Your task to perform on an android device: toggle location history Image 0: 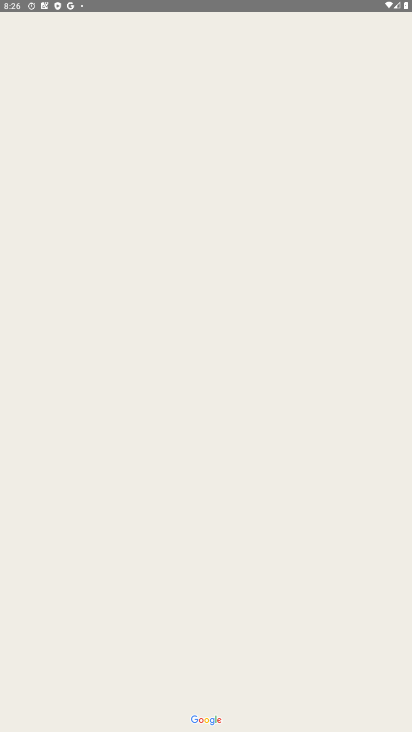
Step 0: click (224, 6)
Your task to perform on an android device: toggle location history Image 1: 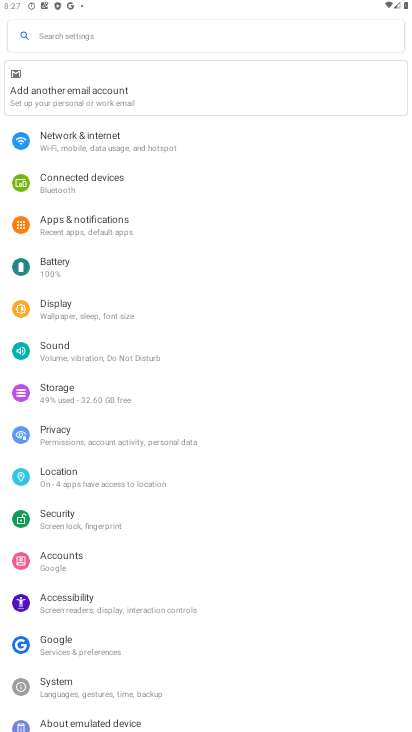
Step 1: click (62, 460)
Your task to perform on an android device: toggle location history Image 2: 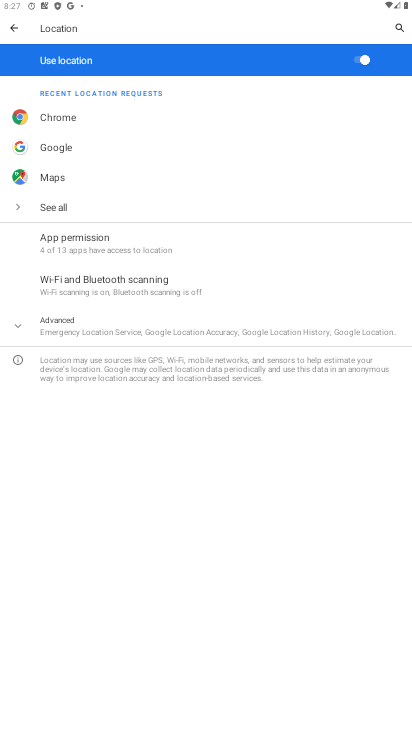
Step 2: click (87, 322)
Your task to perform on an android device: toggle location history Image 3: 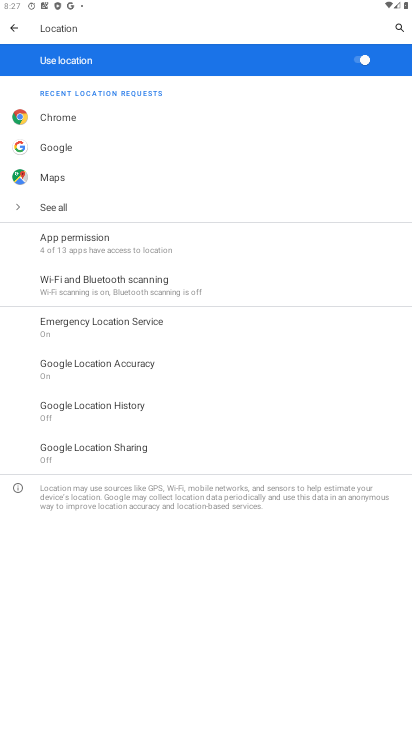
Step 3: click (80, 413)
Your task to perform on an android device: toggle location history Image 4: 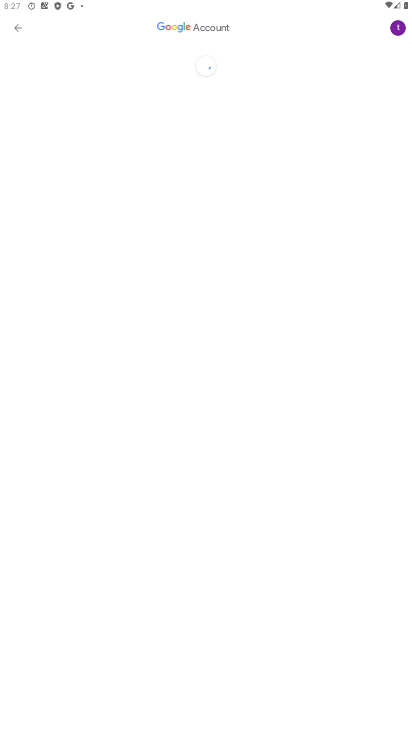
Step 4: click (303, 370)
Your task to perform on an android device: toggle location history Image 5: 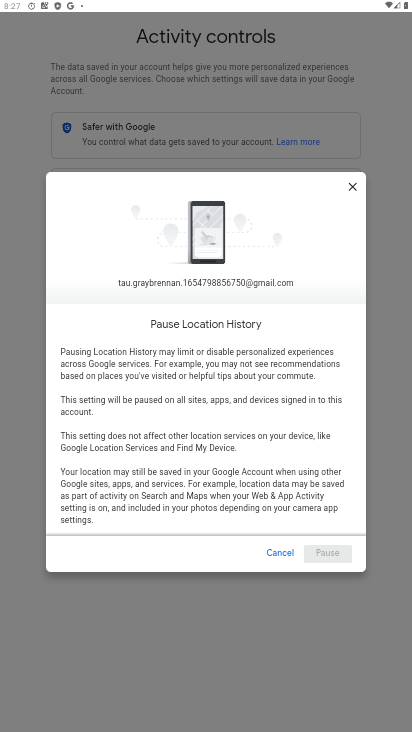
Step 5: drag from (224, 473) to (178, 210)
Your task to perform on an android device: toggle location history Image 6: 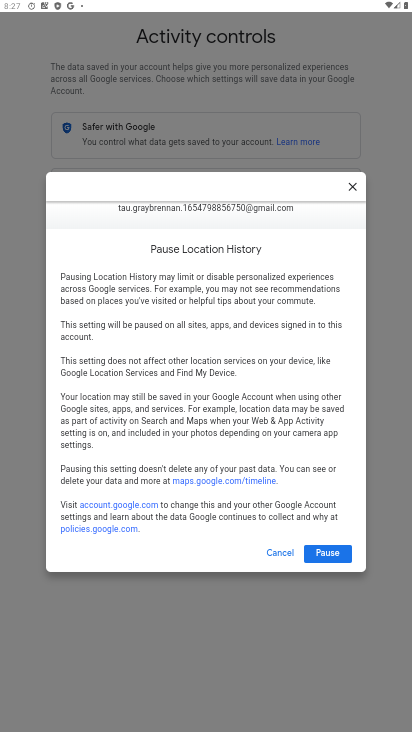
Step 6: click (348, 548)
Your task to perform on an android device: toggle location history Image 7: 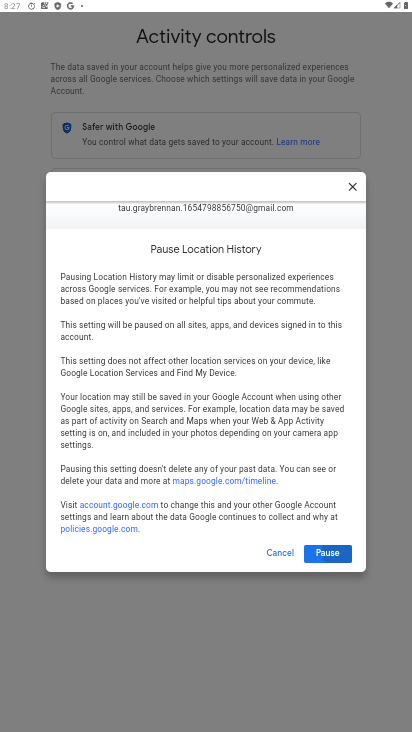
Step 7: click (326, 564)
Your task to perform on an android device: toggle location history Image 8: 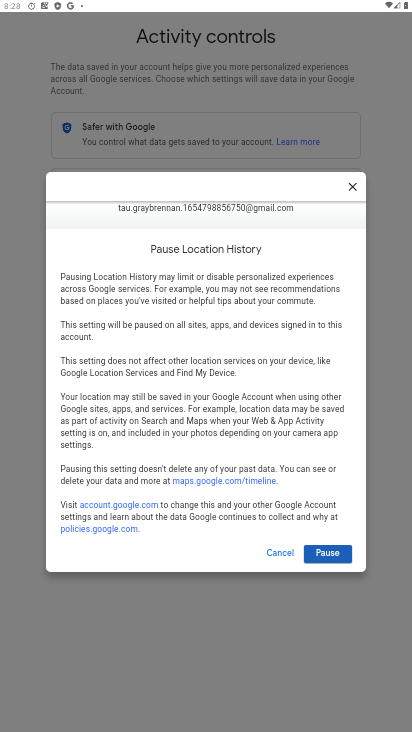
Step 8: click (332, 549)
Your task to perform on an android device: toggle location history Image 9: 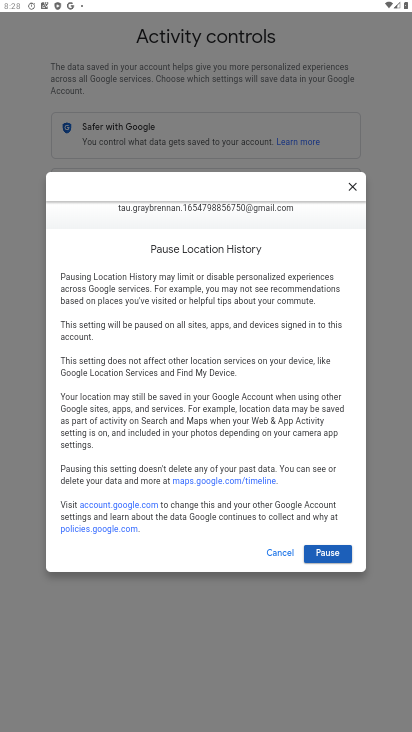
Step 9: click (328, 527)
Your task to perform on an android device: toggle location history Image 10: 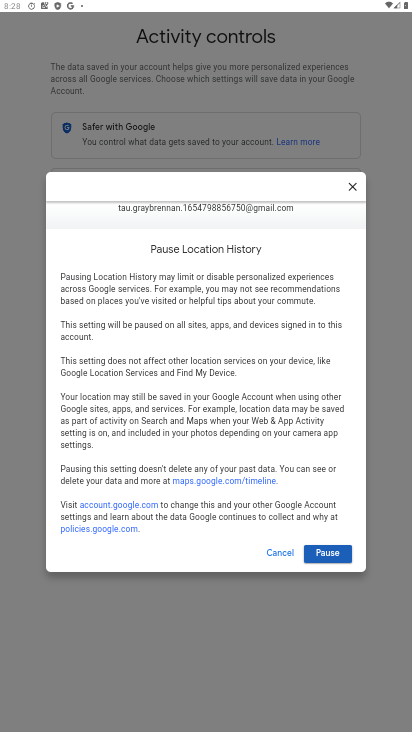
Step 10: click (328, 559)
Your task to perform on an android device: toggle location history Image 11: 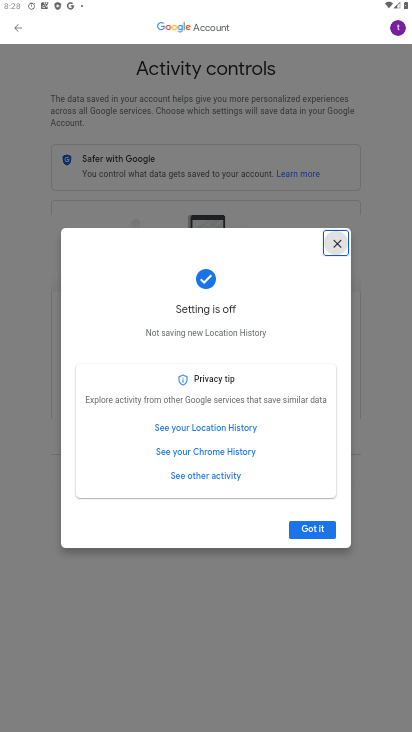
Step 11: click (316, 524)
Your task to perform on an android device: toggle location history Image 12: 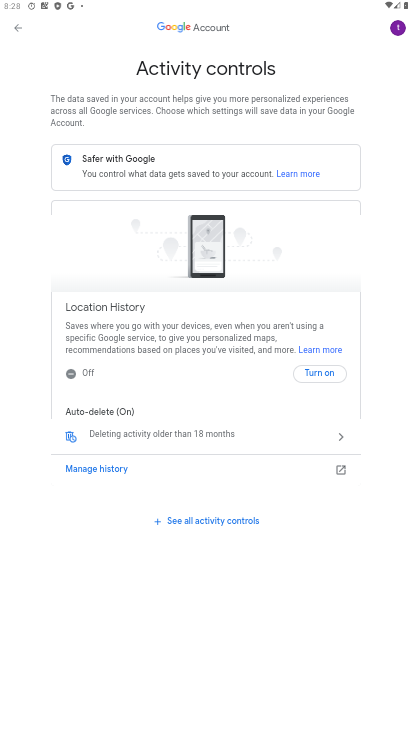
Step 12: task complete